Your task to perform on an android device: Open Google Image 0: 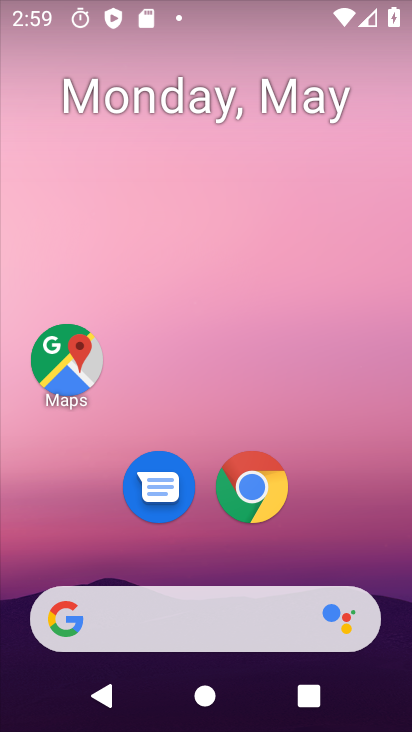
Step 0: click (199, 633)
Your task to perform on an android device: Open Google Image 1: 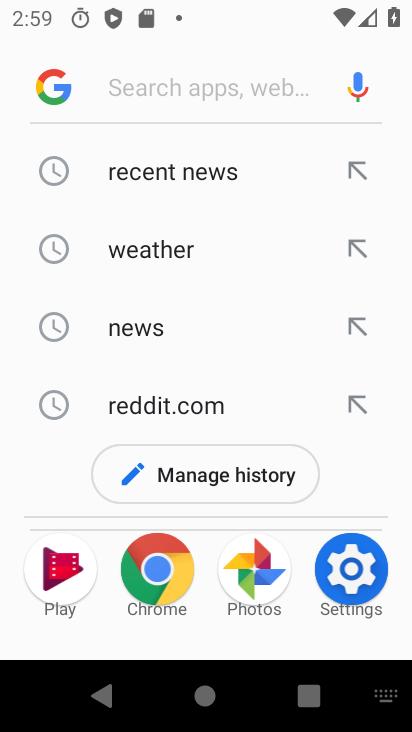
Step 1: click (56, 87)
Your task to perform on an android device: Open Google Image 2: 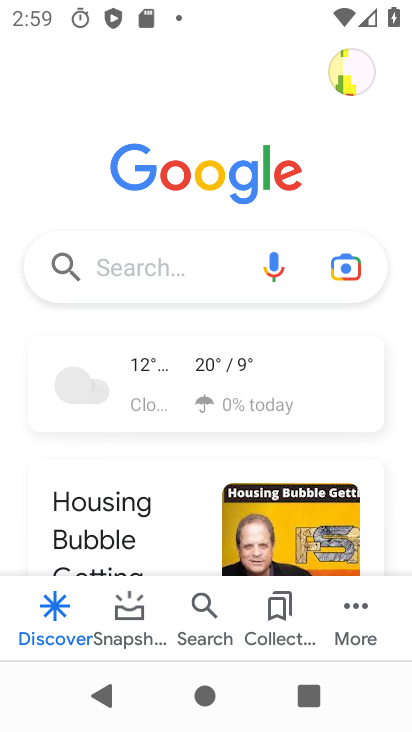
Step 2: task complete